Your task to perform on an android device: Open settings Image 0: 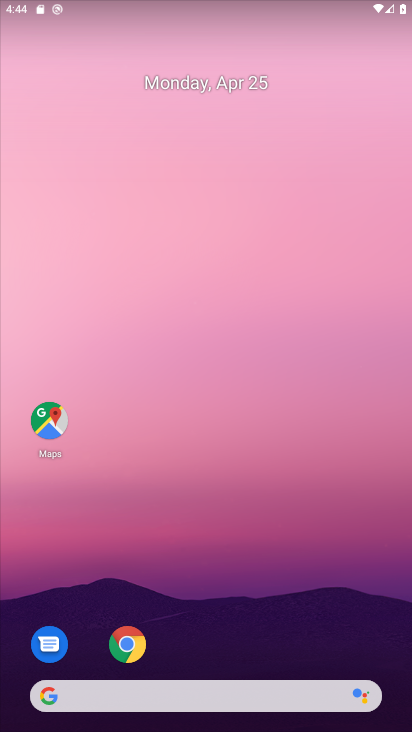
Step 0: drag from (208, 645) to (205, 120)
Your task to perform on an android device: Open settings Image 1: 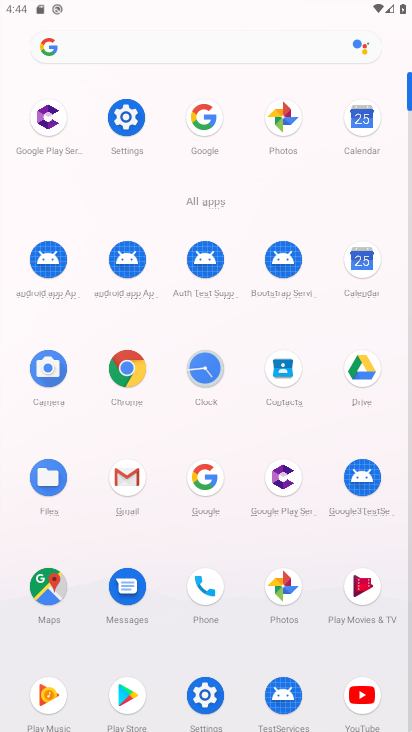
Step 1: click (124, 112)
Your task to perform on an android device: Open settings Image 2: 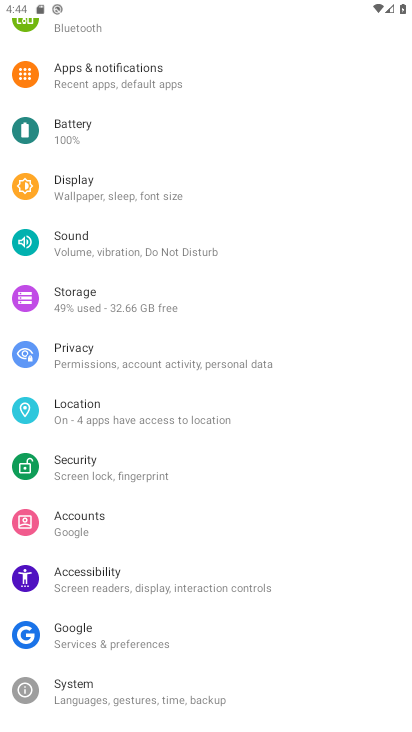
Step 2: task complete